Your task to perform on an android device: Open network settings Image 0: 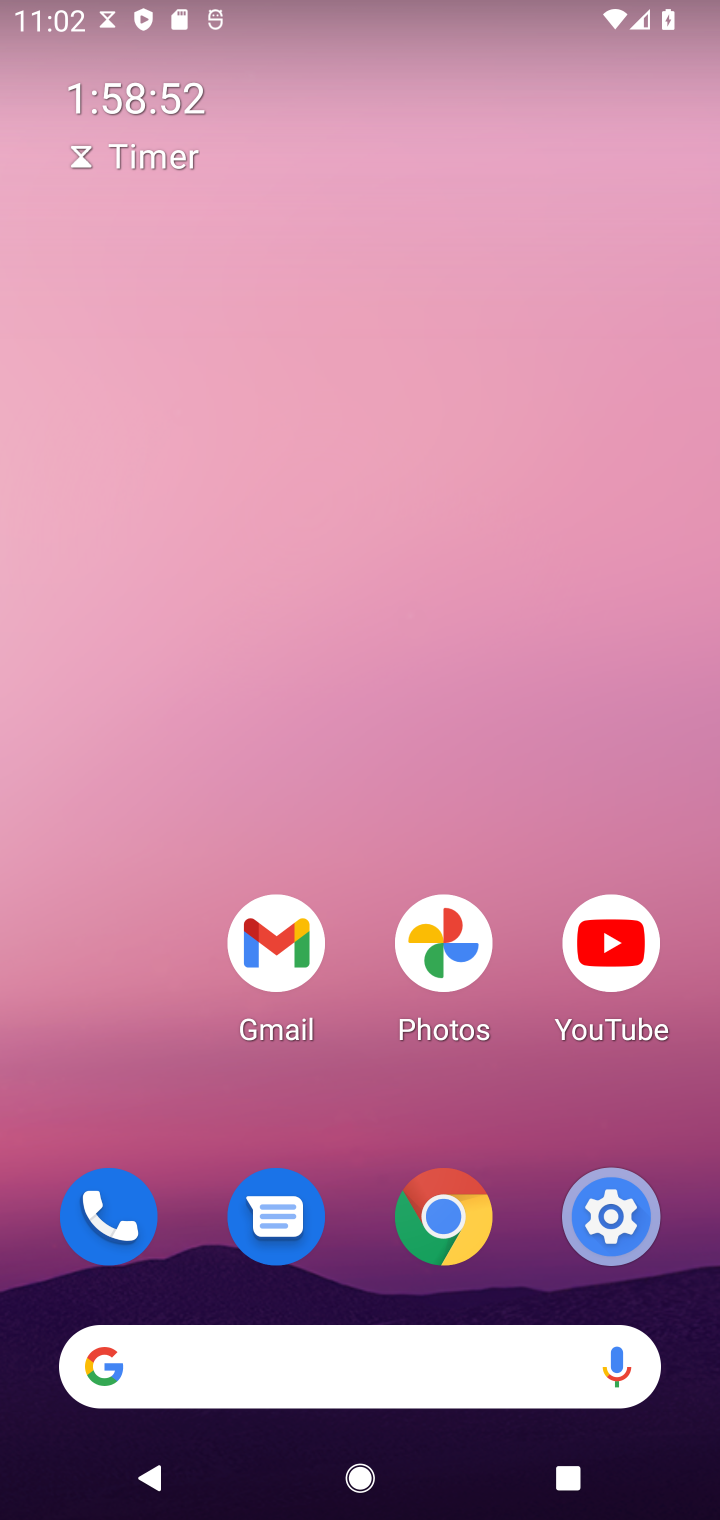
Step 0: click (611, 1207)
Your task to perform on an android device: Open network settings Image 1: 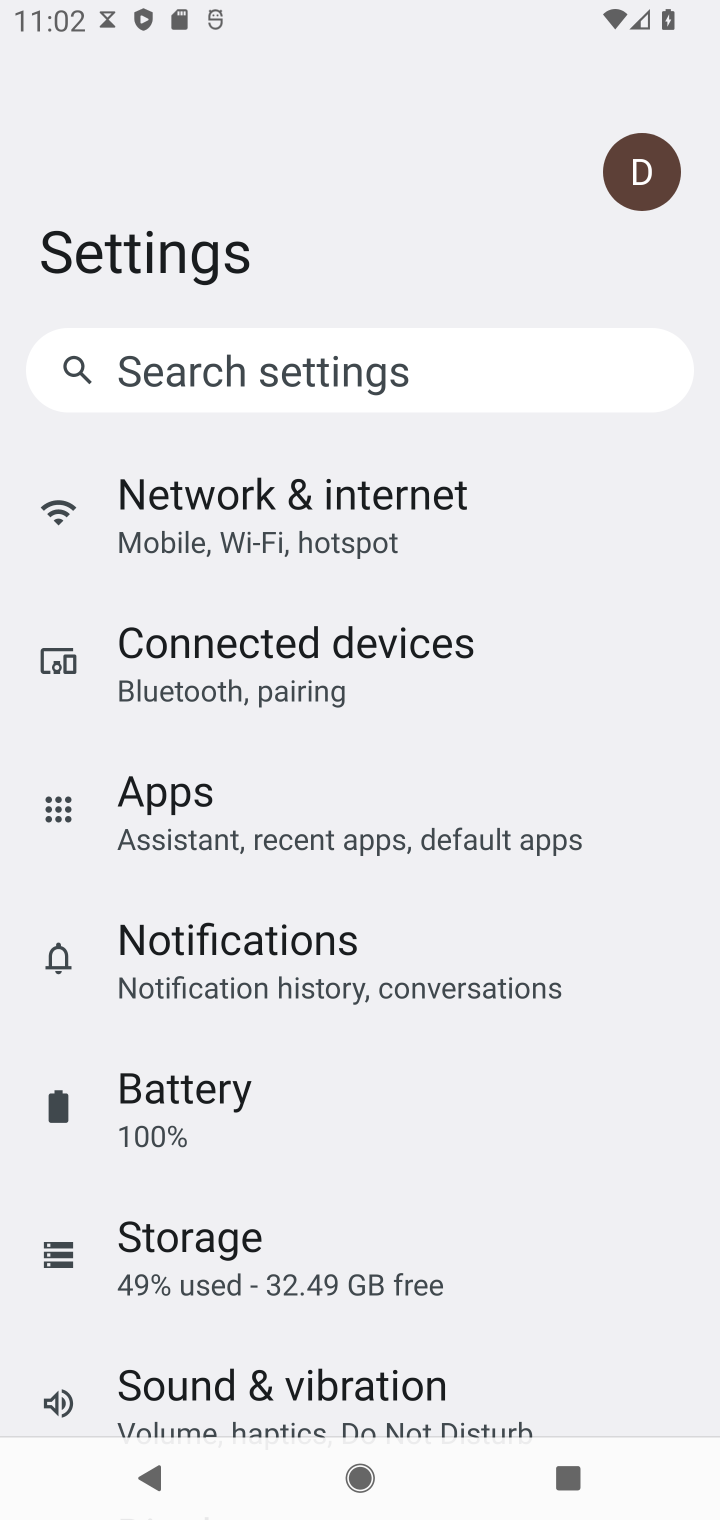
Step 1: click (304, 486)
Your task to perform on an android device: Open network settings Image 2: 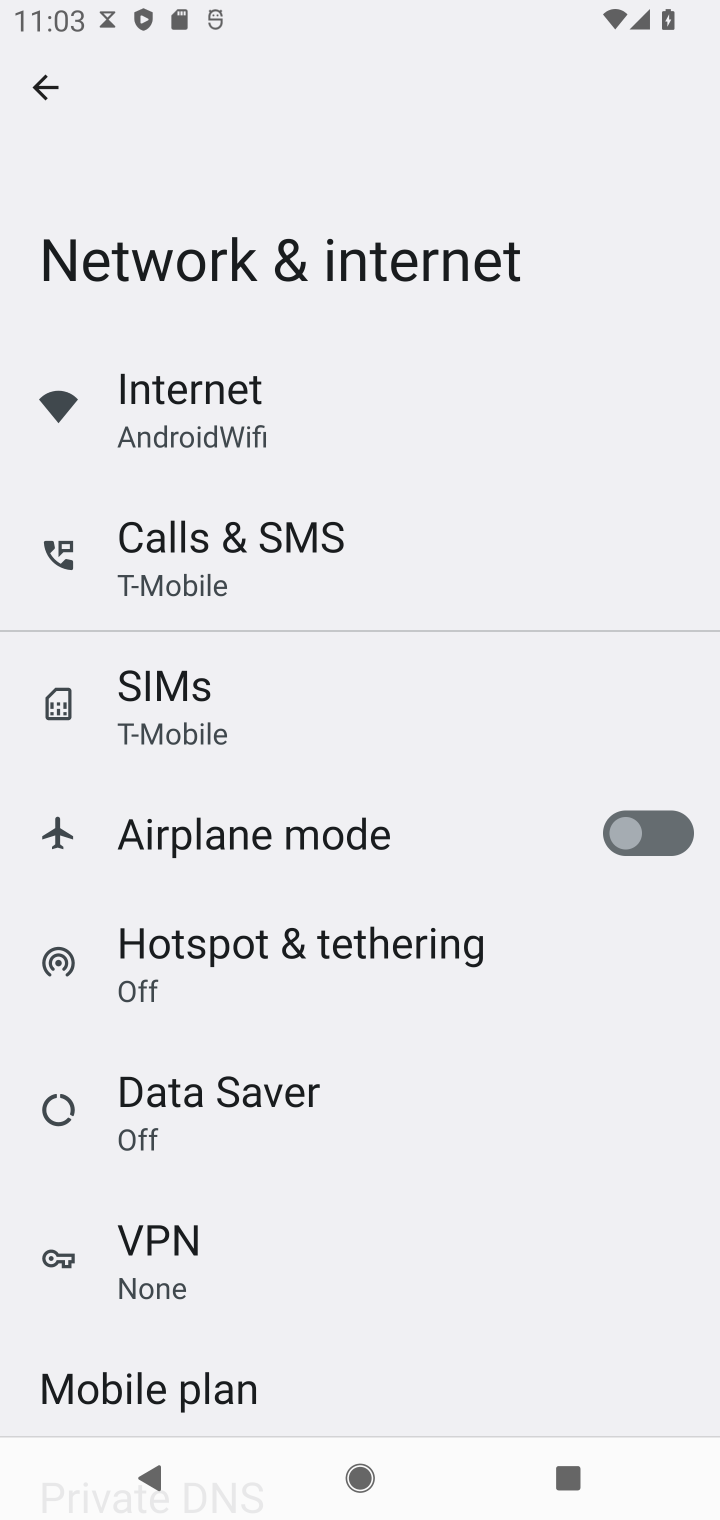
Step 2: task complete